Your task to perform on an android device: Open the calendar app, open the side menu, and click the "Day" option Image 0: 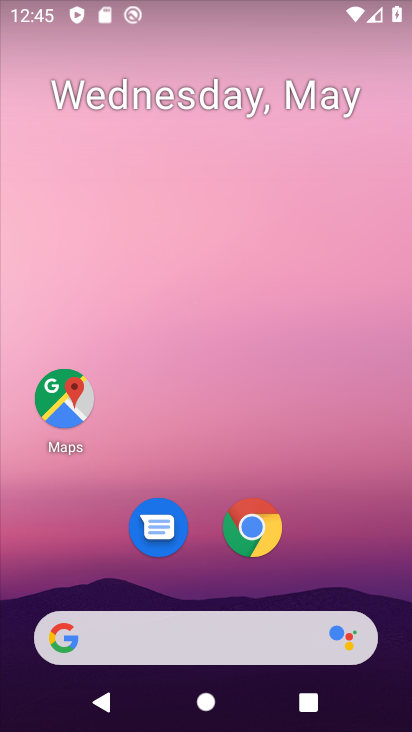
Step 0: drag from (213, 465) to (282, 94)
Your task to perform on an android device: Open the calendar app, open the side menu, and click the "Day" option Image 1: 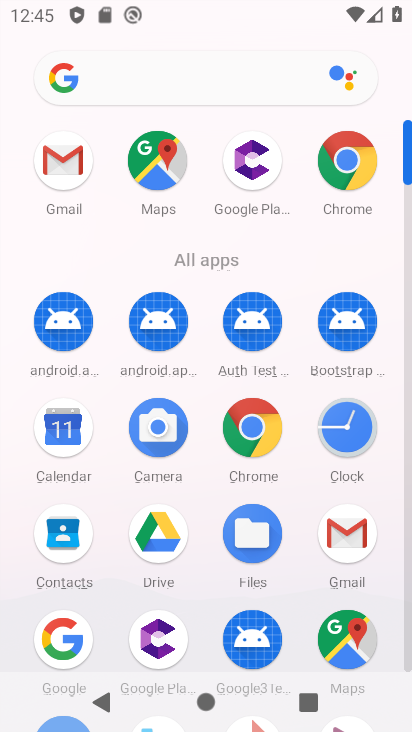
Step 1: click (53, 427)
Your task to perform on an android device: Open the calendar app, open the side menu, and click the "Day" option Image 2: 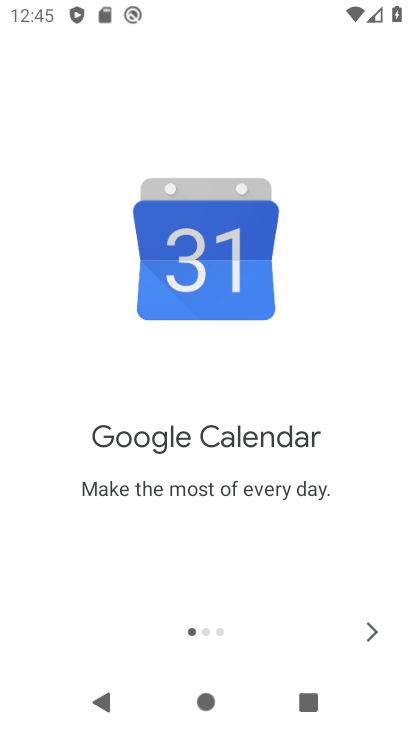
Step 2: click (370, 633)
Your task to perform on an android device: Open the calendar app, open the side menu, and click the "Day" option Image 3: 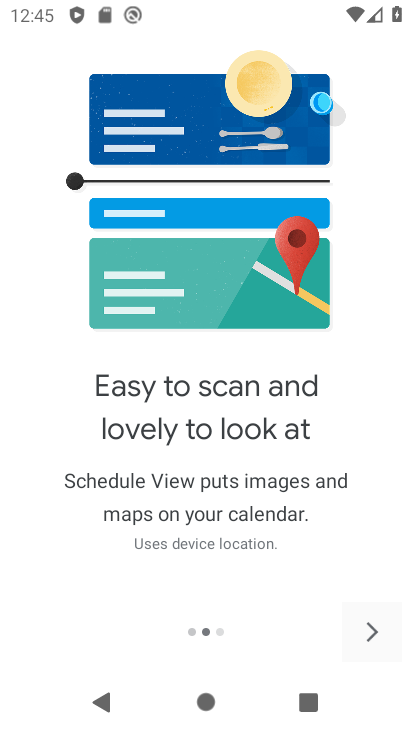
Step 3: click (370, 633)
Your task to perform on an android device: Open the calendar app, open the side menu, and click the "Day" option Image 4: 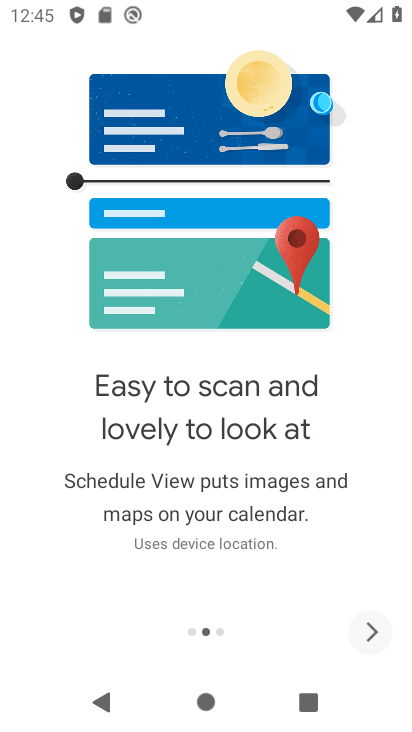
Step 4: click (370, 633)
Your task to perform on an android device: Open the calendar app, open the side menu, and click the "Day" option Image 5: 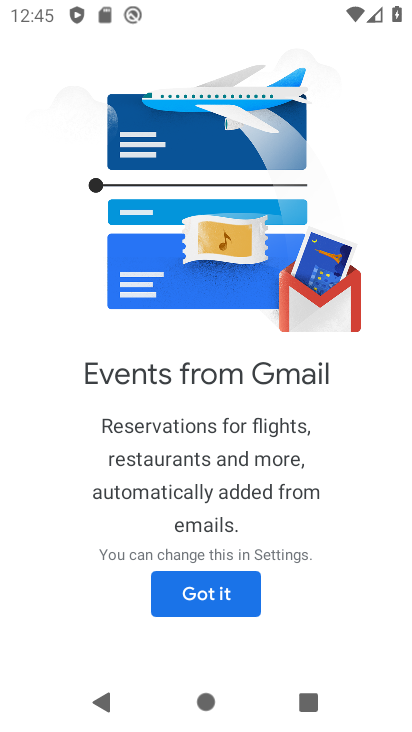
Step 5: click (246, 597)
Your task to perform on an android device: Open the calendar app, open the side menu, and click the "Day" option Image 6: 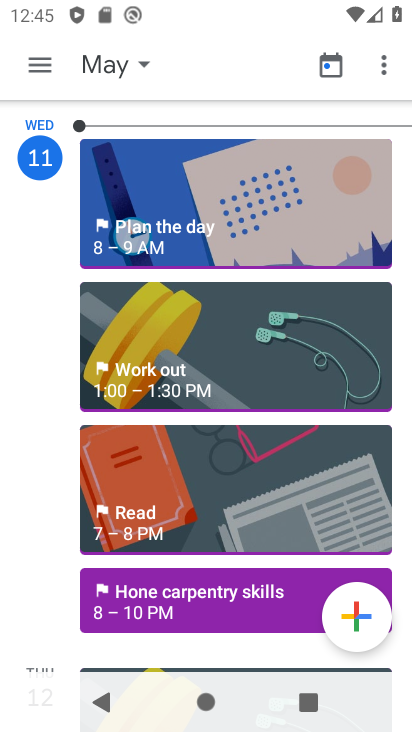
Step 6: click (45, 71)
Your task to perform on an android device: Open the calendar app, open the side menu, and click the "Day" option Image 7: 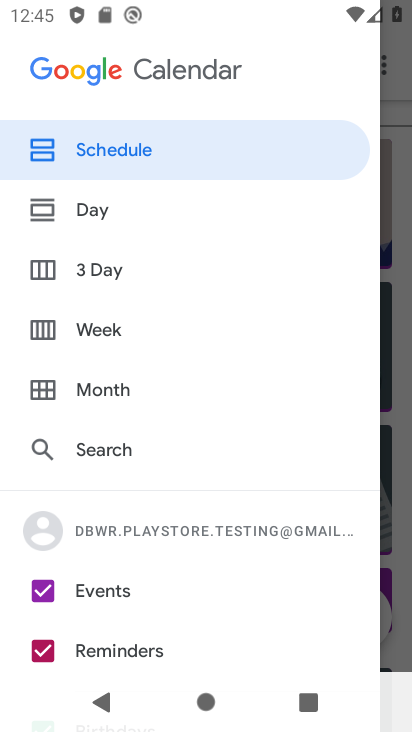
Step 7: click (74, 211)
Your task to perform on an android device: Open the calendar app, open the side menu, and click the "Day" option Image 8: 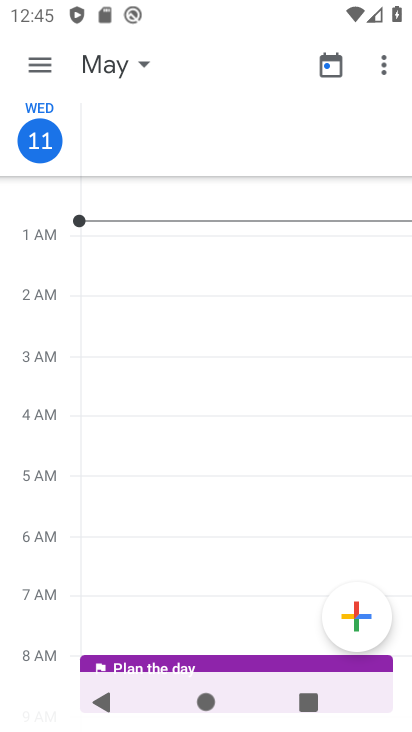
Step 8: task complete